Your task to perform on an android device: turn on translation in the chrome app Image 0: 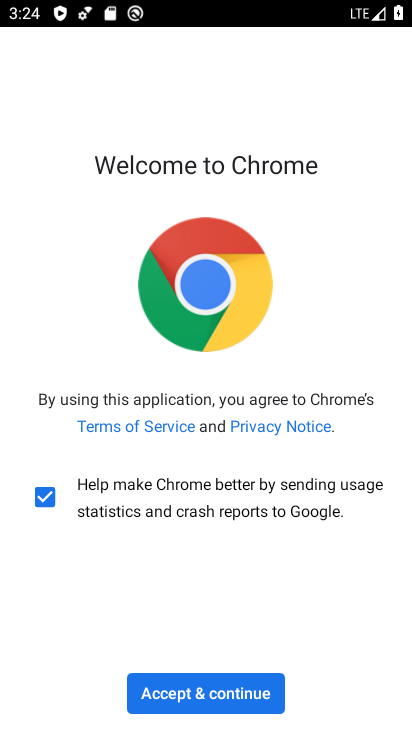
Step 0: click (248, 701)
Your task to perform on an android device: turn on translation in the chrome app Image 1: 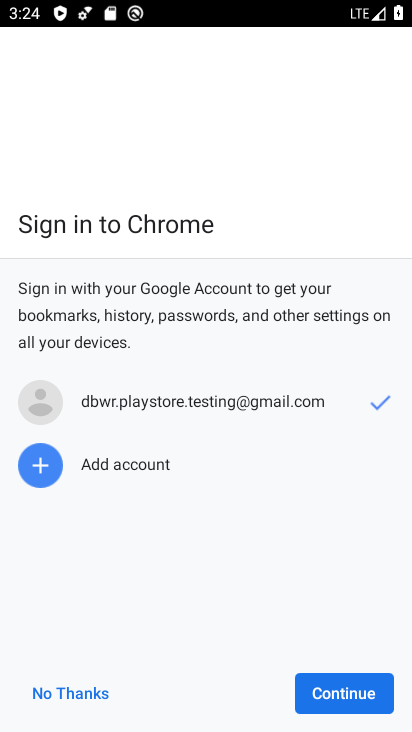
Step 1: click (348, 690)
Your task to perform on an android device: turn on translation in the chrome app Image 2: 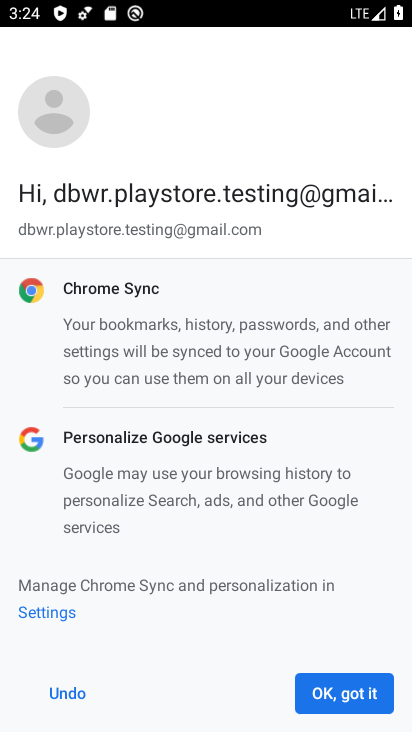
Step 2: click (352, 683)
Your task to perform on an android device: turn on translation in the chrome app Image 3: 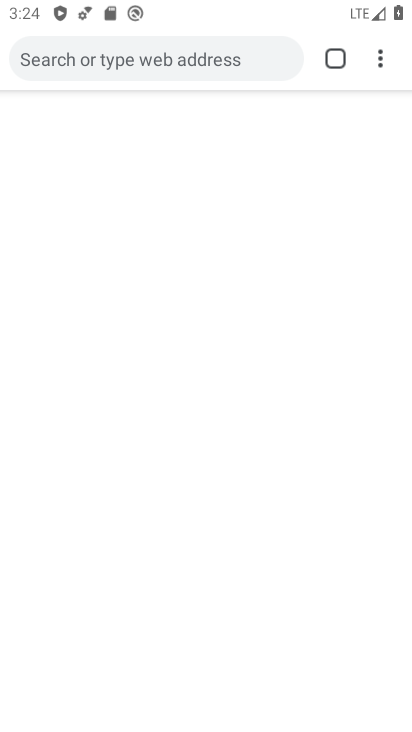
Step 3: drag from (385, 52) to (242, 501)
Your task to perform on an android device: turn on translation in the chrome app Image 4: 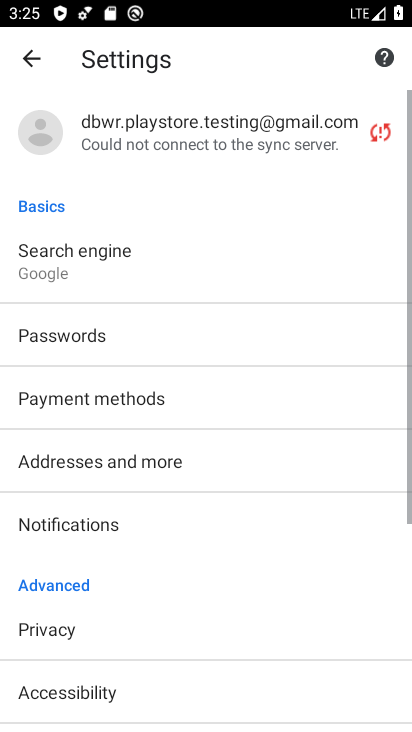
Step 4: drag from (251, 542) to (232, 2)
Your task to perform on an android device: turn on translation in the chrome app Image 5: 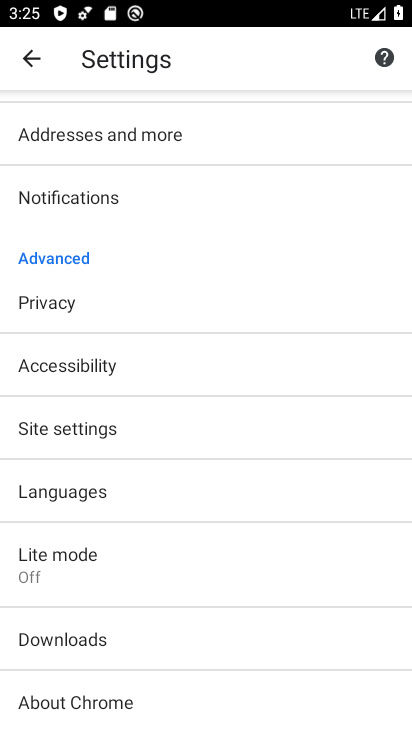
Step 5: click (145, 489)
Your task to perform on an android device: turn on translation in the chrome app Image 6: 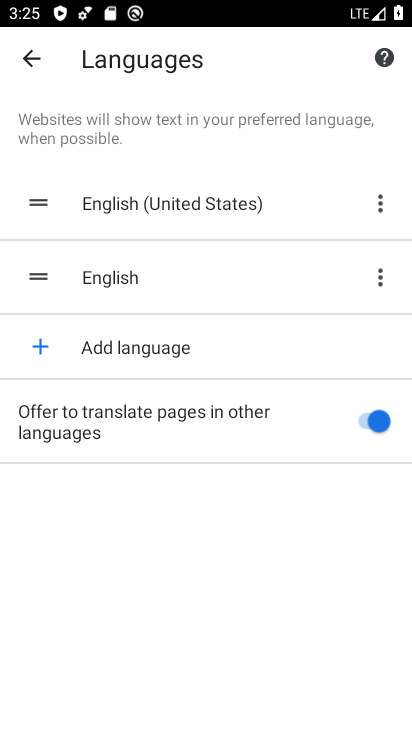
Step 6: task complete